Your task to perform on an android device: Open the phone app and click the voicemail tab. Image 0: 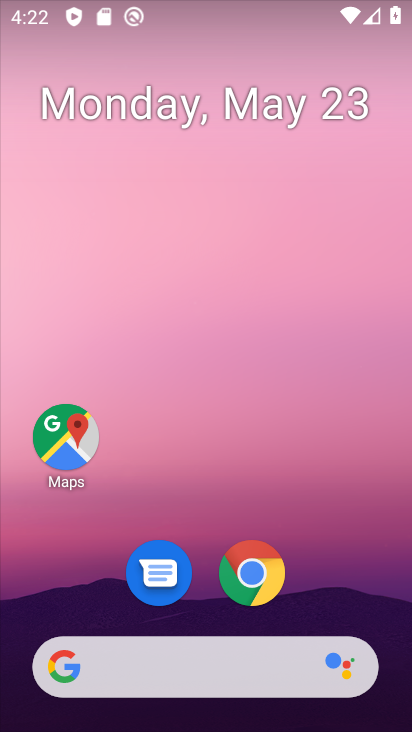
Step 0: drag from (173, 722) to (196, 60)
Your task to perform on an android device: Open the phone app and click the voicemail tab. Image 1: 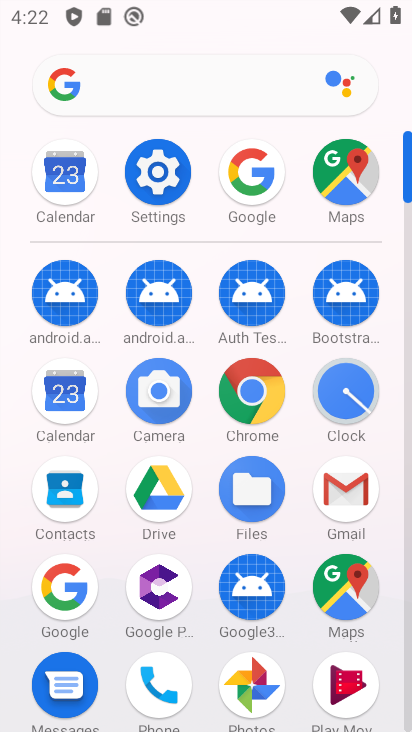
Step 1: click (152, 659)
Your task to perform on an android device: Open the phone app and click the voicemail tab. Image 2: 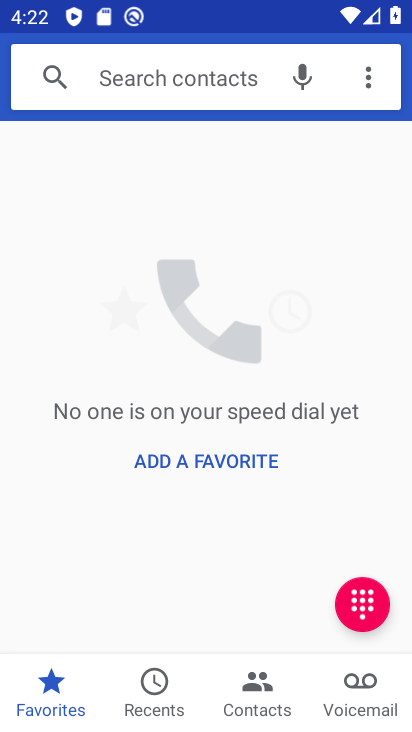
Step 2: click (370, 677)
Your task to perform on an android device: Open the phone app and click the voicemail tab. Image 3: 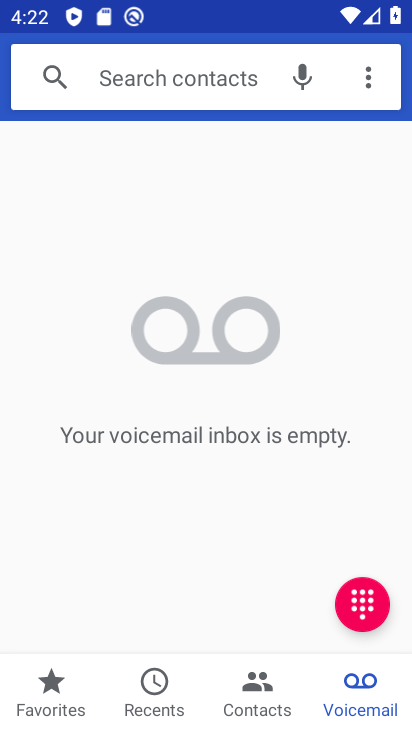
Step 3: task complete